Your task to perform on an android device: Go to Yahoo.com Image 0: 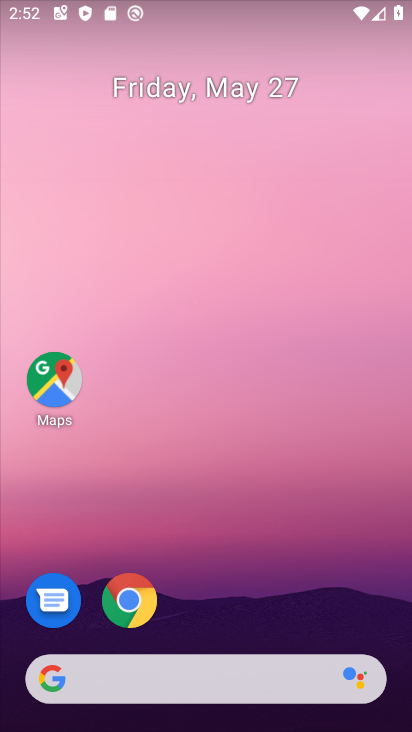
Step 0: click (122, 606)
Your task to perform on an android device: Go to Yahoo.com Image 1: 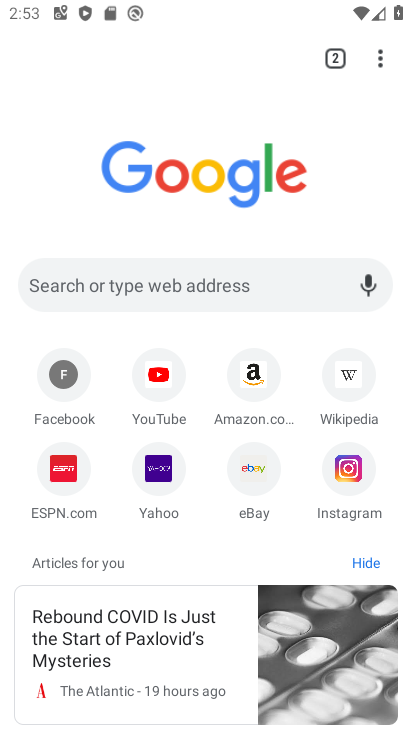
Step 1: click (158, 493)
Your task to perform on an android device: Go to Yahoo.com Image 2: 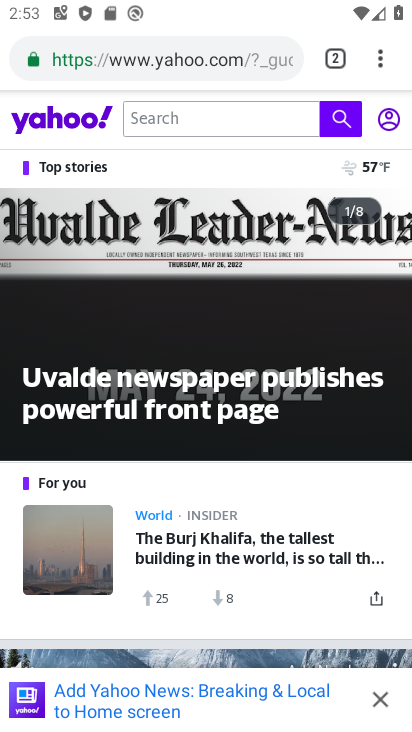
Step 2: task complete